Your task to perform on an android device: Open wifi settings Image 0: 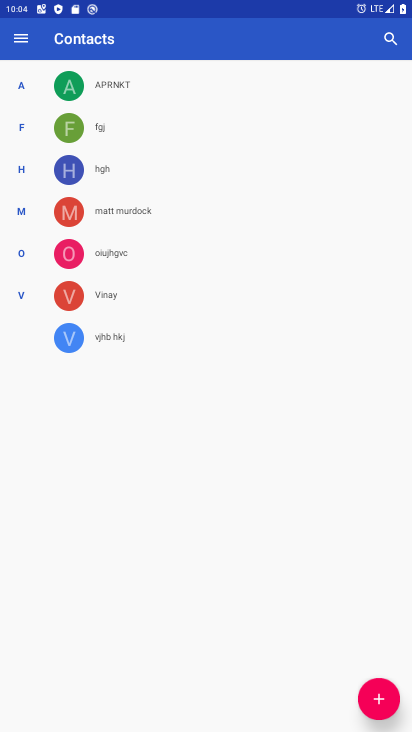
Step 0: press home button
Your task to perform on an android device: Open wifi settings Image 1: 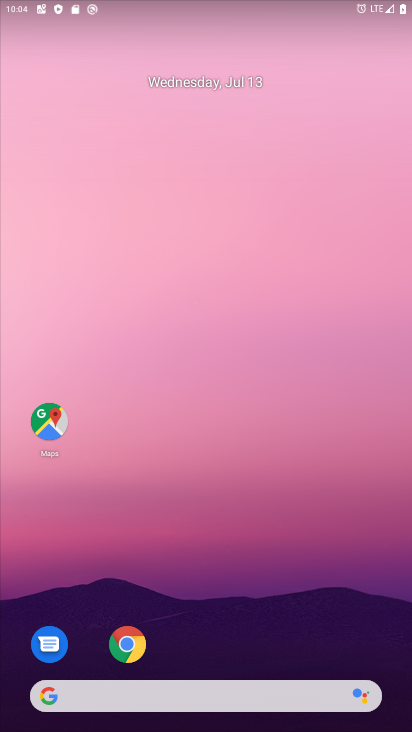
Step 1: drag from (214, 728) to (195, 108)
Your task to perform on an android device: Open wifi settings Image 2: 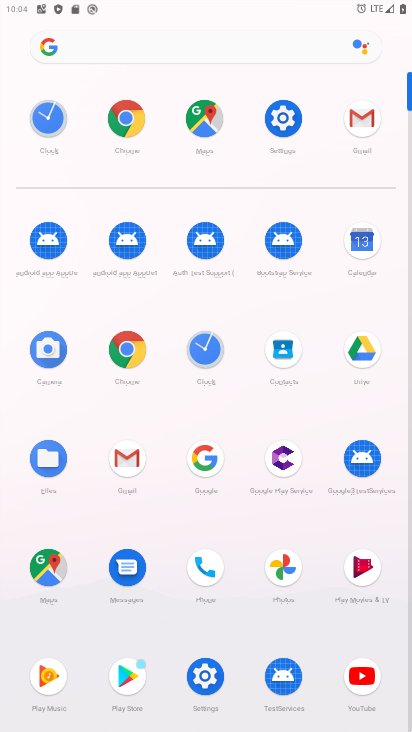
Step 2: click (284, 112)
Your task to perform on an android device: Open wifi settings Image 3: 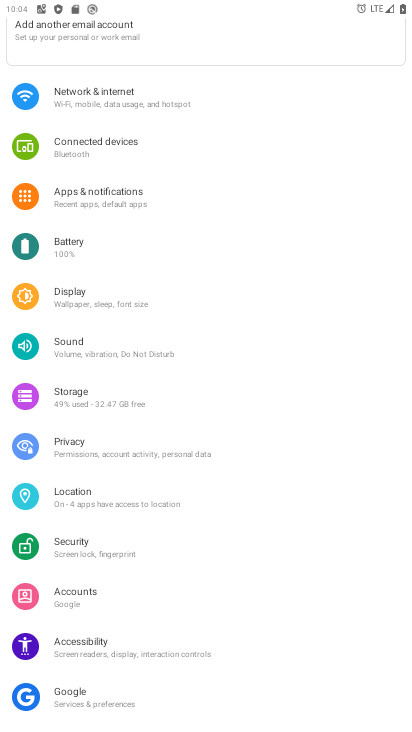
Step 3: click (118, 100)
Your task to perform on an android device: Open wifi settings Image 4: 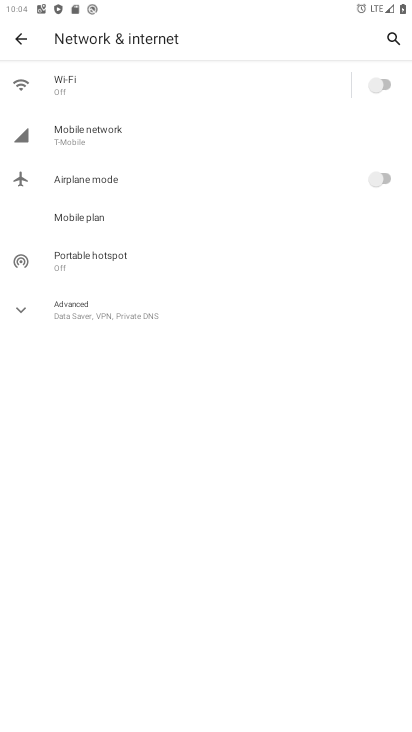
Step 4: click (65, 80)
Your task to perform on an android device: Open wifi settings Image 5: 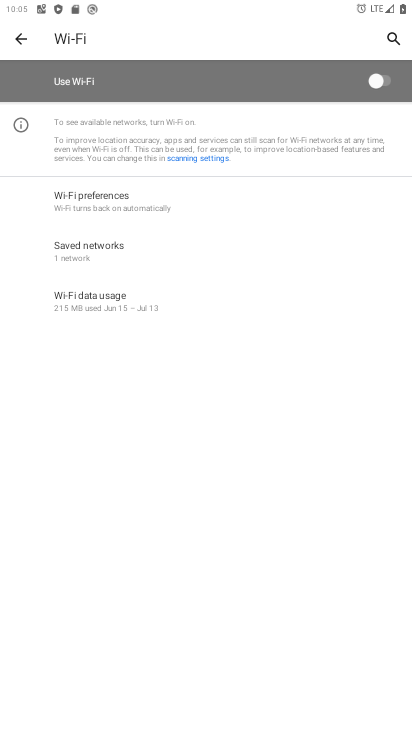
Step 5: task complete